Your task to perform on an android device: turn on notifications settings in the gmail app Image 0: 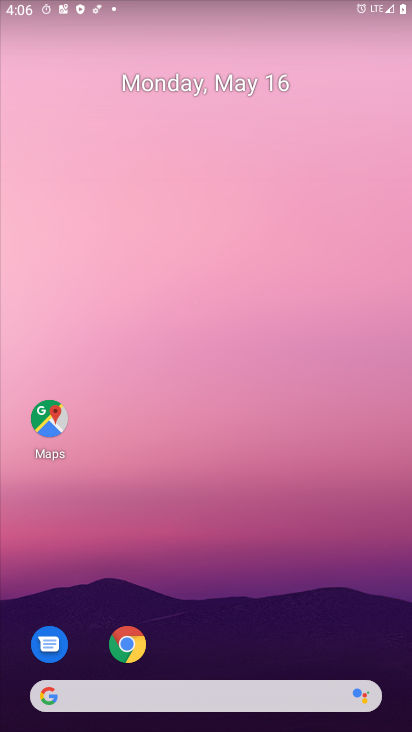
Step 0: drag from (170, 569) to (237, 98)
Your task to perform on an android device: turn on notifications settings in the gmail app Image 1: 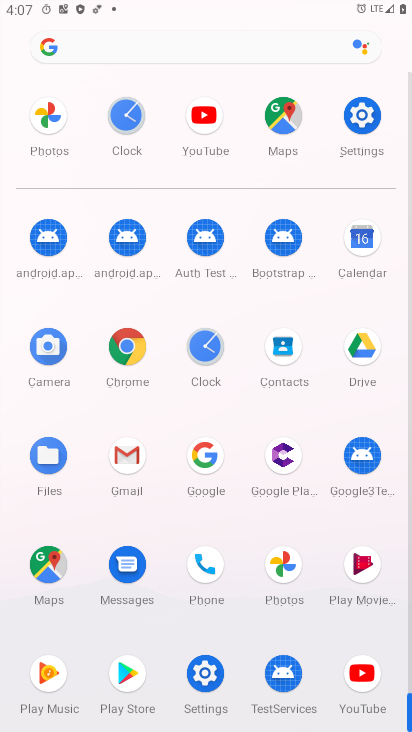
Step 1: click (137, 469)
Your task to perform on an android device: turn on notifications settings in the gmail app Image 2: 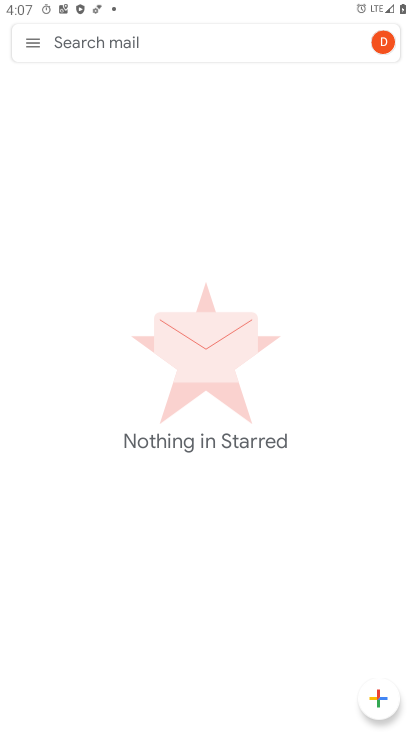
Step 2: click (26, 44)
Your task to perform on an android device: turn on notifications settings in the gmail app Image 3: 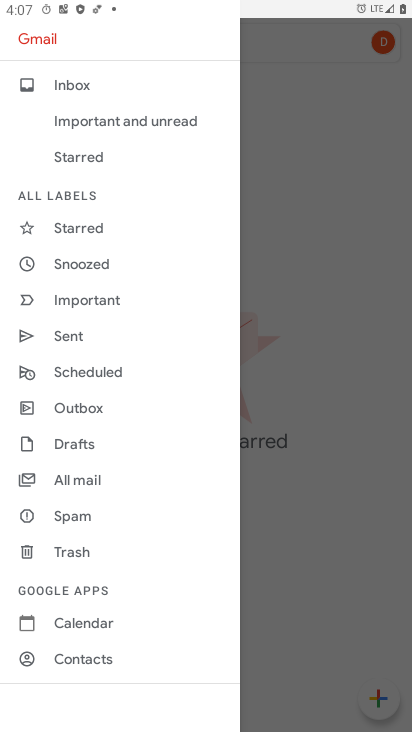
Step 3: drag from (82, 520) to (82, 236)
Your task to perform on an android device: turn on notifications settings in the gmail app Image 4: 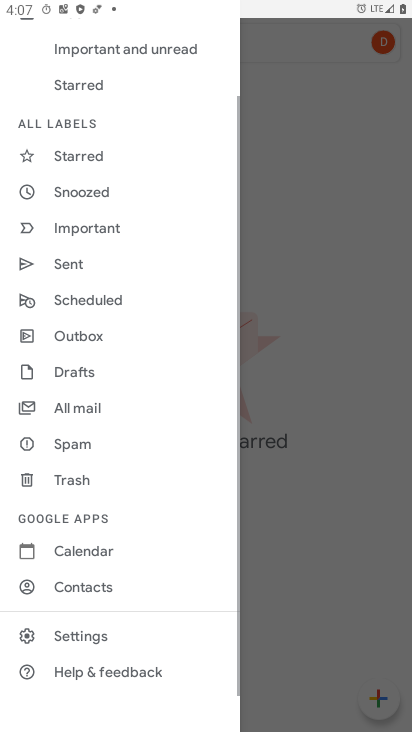
Step 4: click (109, 637)
Your task to perform on an android device: turn on notifications settings in the gmail app Image 5: 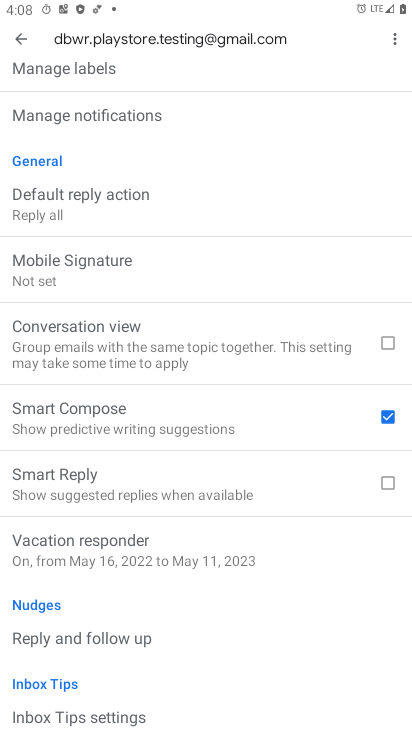
Step 5: click (18, 36)
Your task to perform on an android device: turn on notifications settings in the gmail app Image 6: 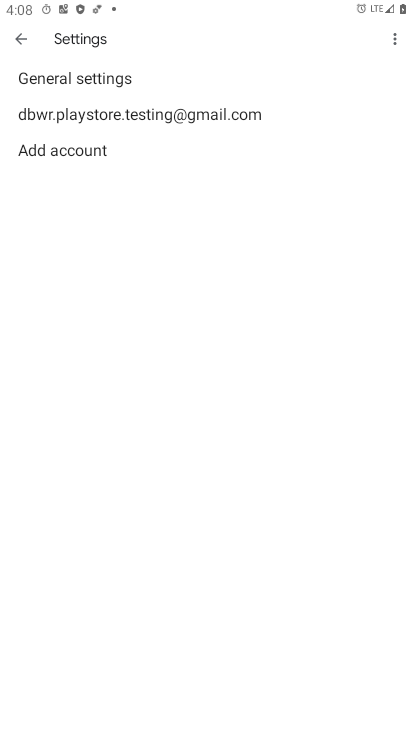
Step 6: click (69, 80)
Your task to perform on an android device: turn on notifications settings in the gmail app Image 7: 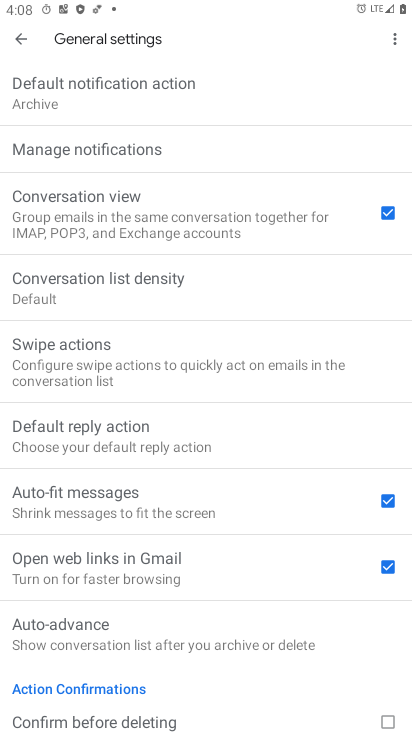
Step 7: click (154, 149)
Your task to perform on an android device: turn on notifications settings in the gmail app Image 8: 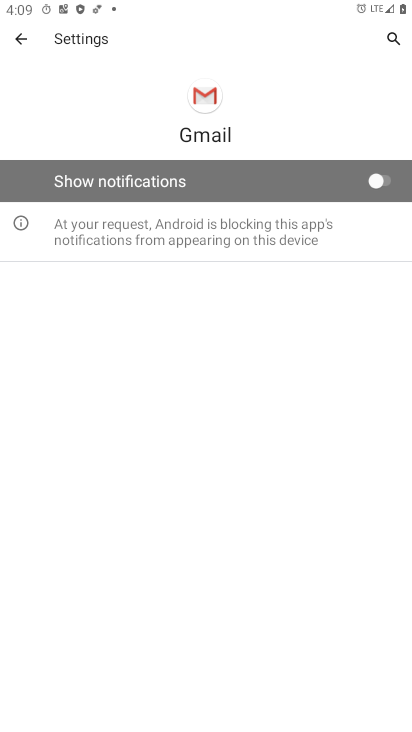
Step 8: click (380, 191)
Your task to perform on an android device: turn on notifications settings in the gmail app Image 9: 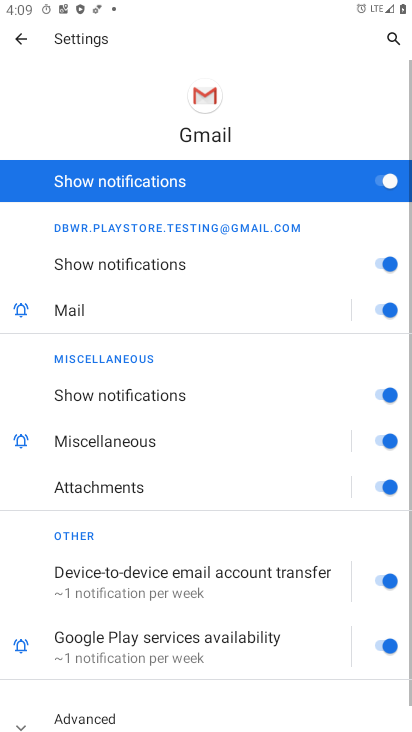
Step 9: task complete